Your task to perform on an android device: Turn off the flashlight Image 0: 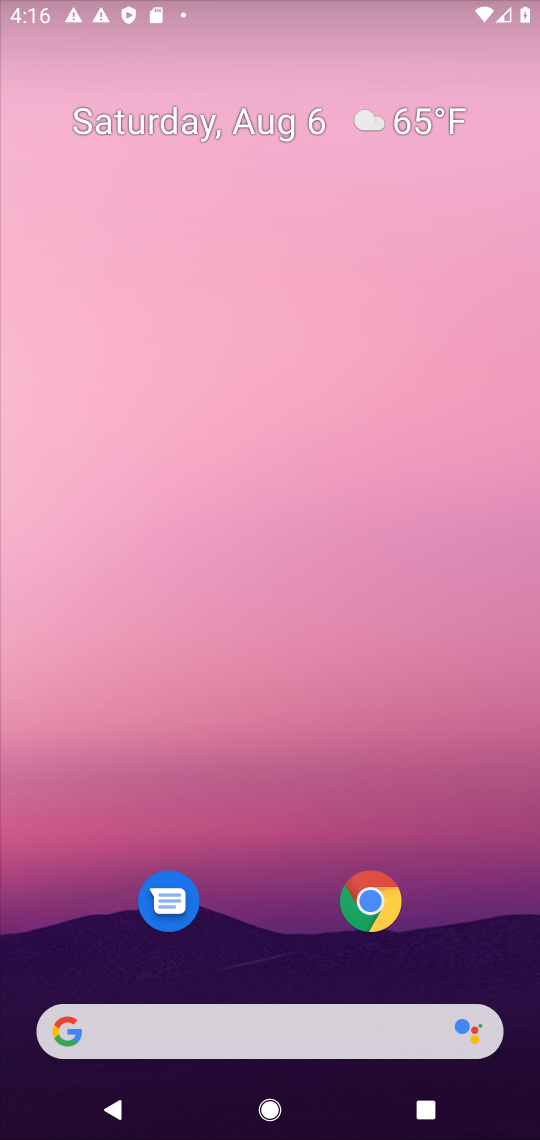
Step 0: press home button
Your task to perform on an android device: Turn off the flashlight Image 1: 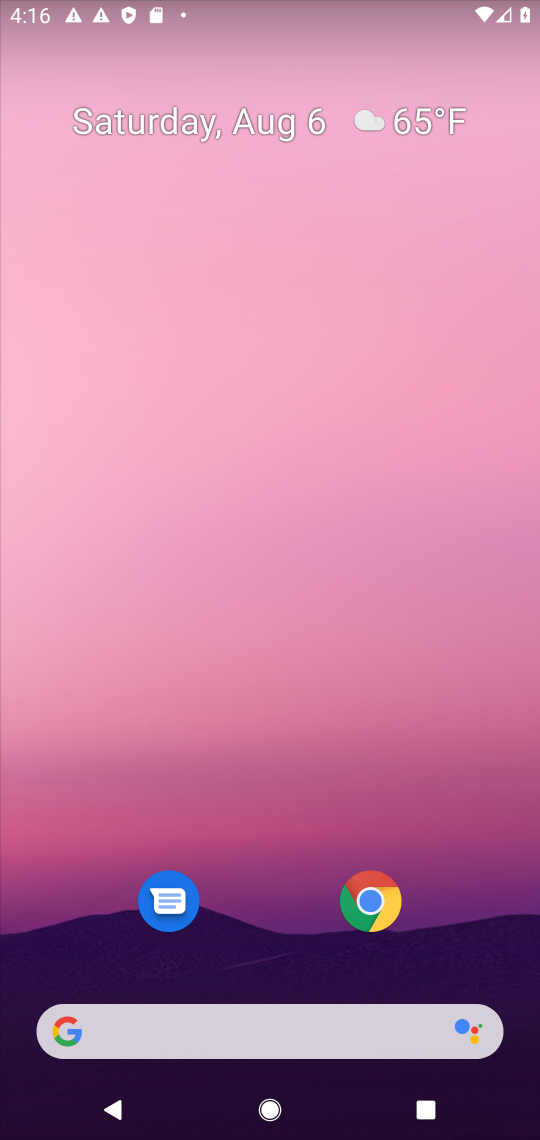
Step 1: task complete